Your task to perform on an android device: read, delete, or share a saved page in the chrome app Image 0: 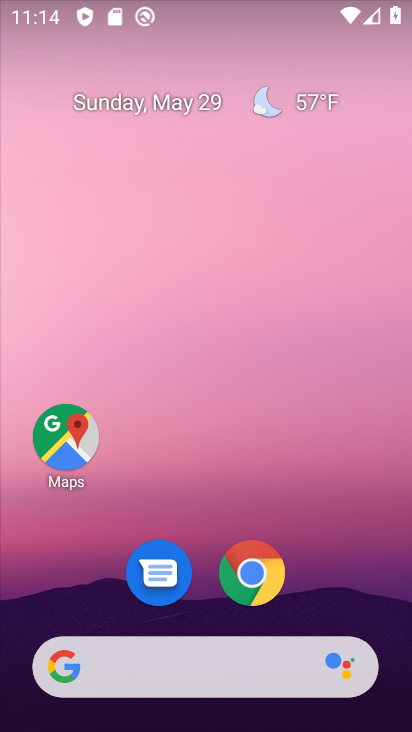
Step 0: drag from (284, 694) to (307, 4)
Your task to perform on an android device: read, delete, or share a saved page in the chrome app Image 1: 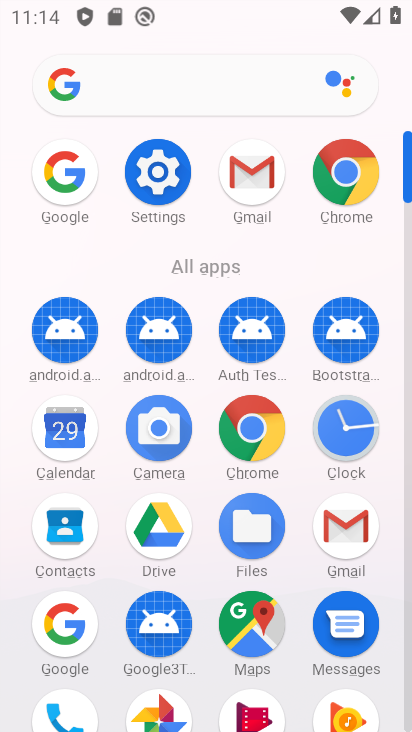
Step 1: click (233, 422)
Your task to perform on an android device: read, delete, or share a saved page in the chrome app Image 2: 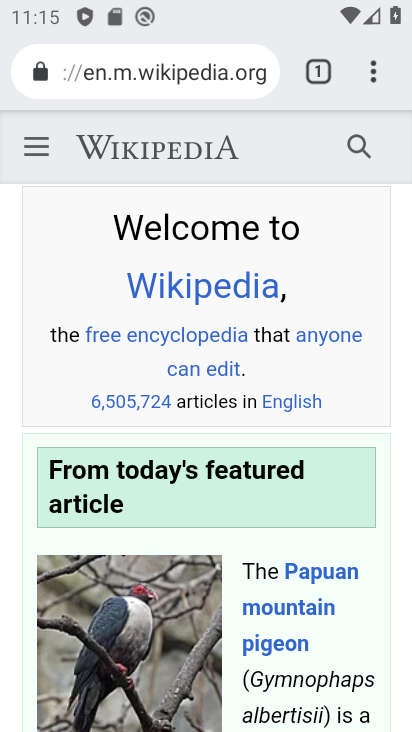
Step 2: task complete